Your task to perform on an android device: Do I have any events today? Image 0: 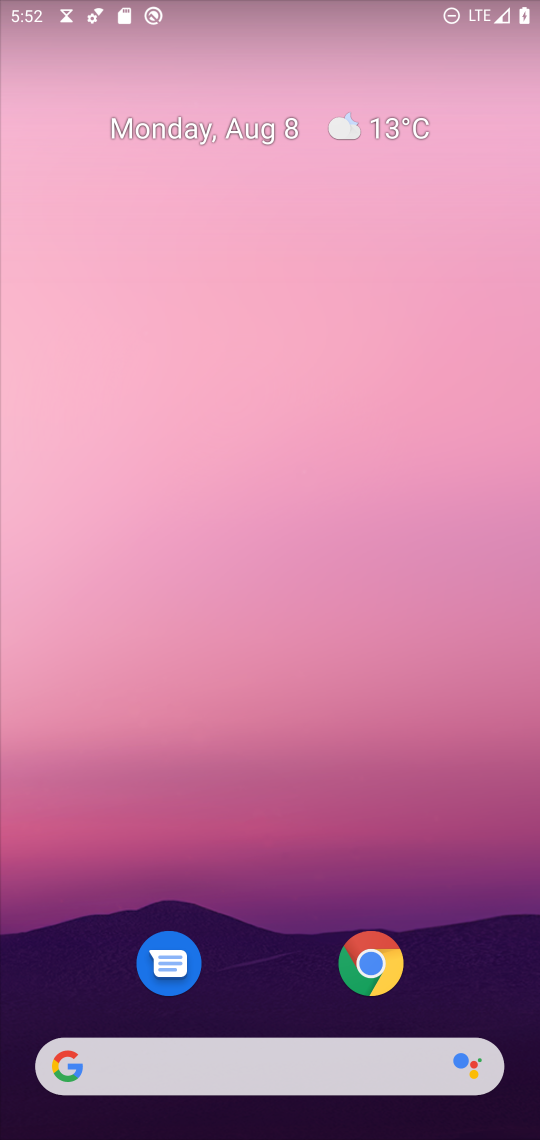
Step 0: drag from (244, 966) to (241, 220)
Your task to perform on an android device: Do I have any events today? Image 1: 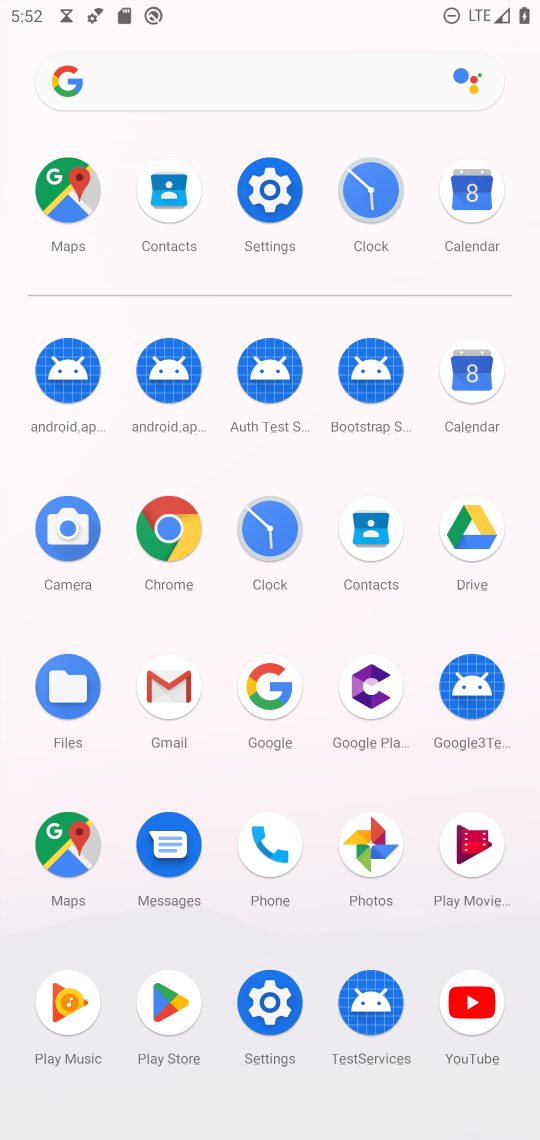
Step 1: click (466, 384)
Your task to perform on an android device: Do I have any events today? Image 2: 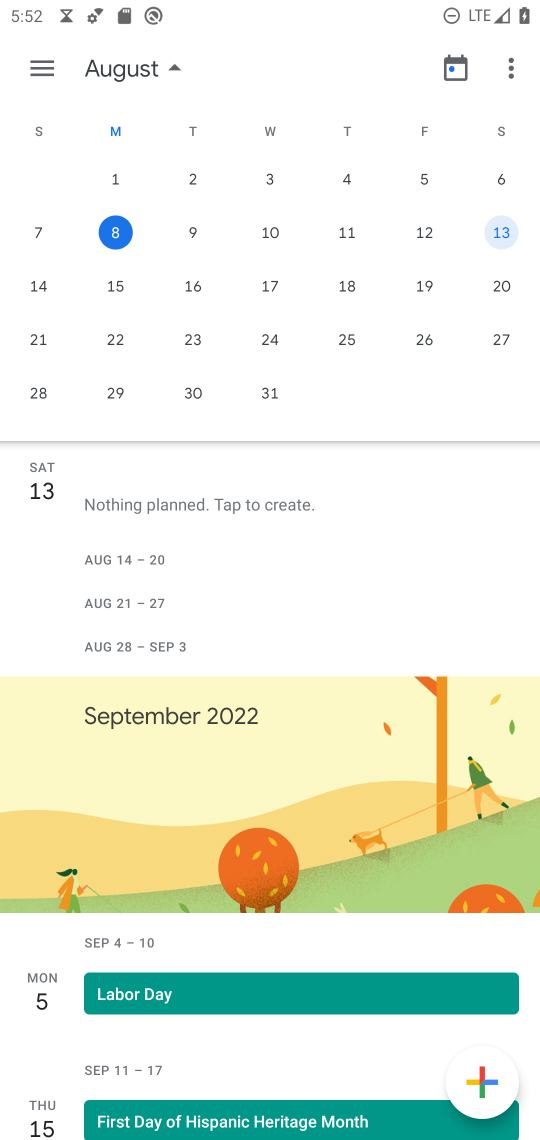
Step 2: click (113, 238)
Your task to perform on an android device: Do I have any events today? Image 3: 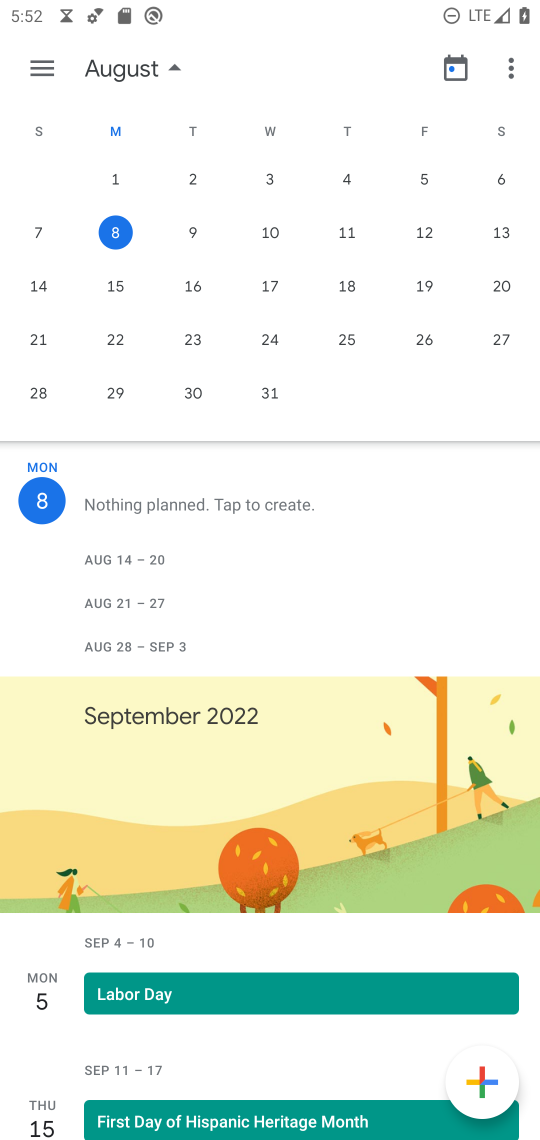
Step 3: task complete